Your task to perform on an android device: open app "Adobe Express: Graphic Design" (install if not already installed) and go to login screen Image 0: 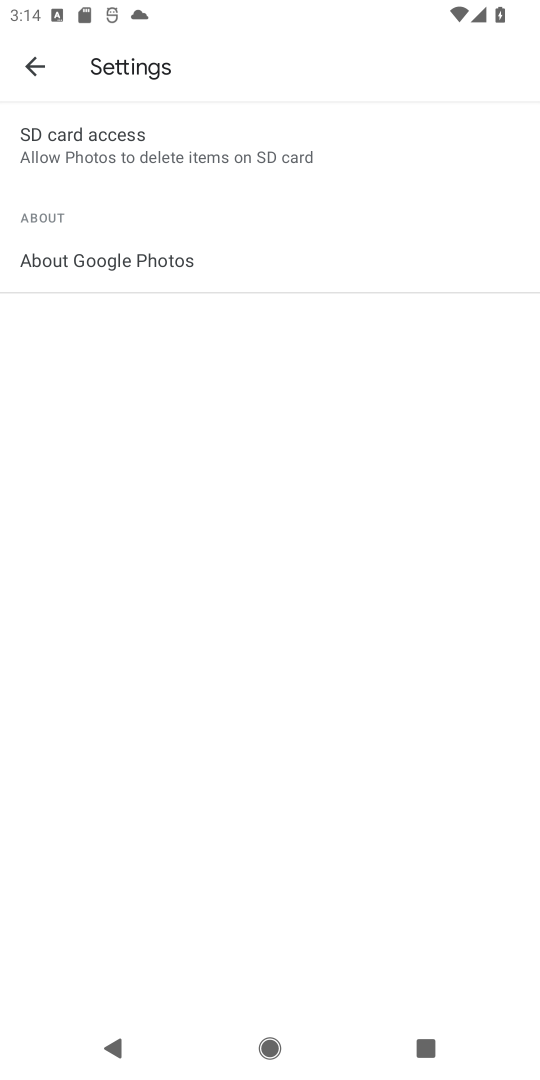
Step 0: press home button
Your task to perform on an android device: open app "Adobe Express: Graphic Design" (install if not already installed) and go to login screen Image 1: 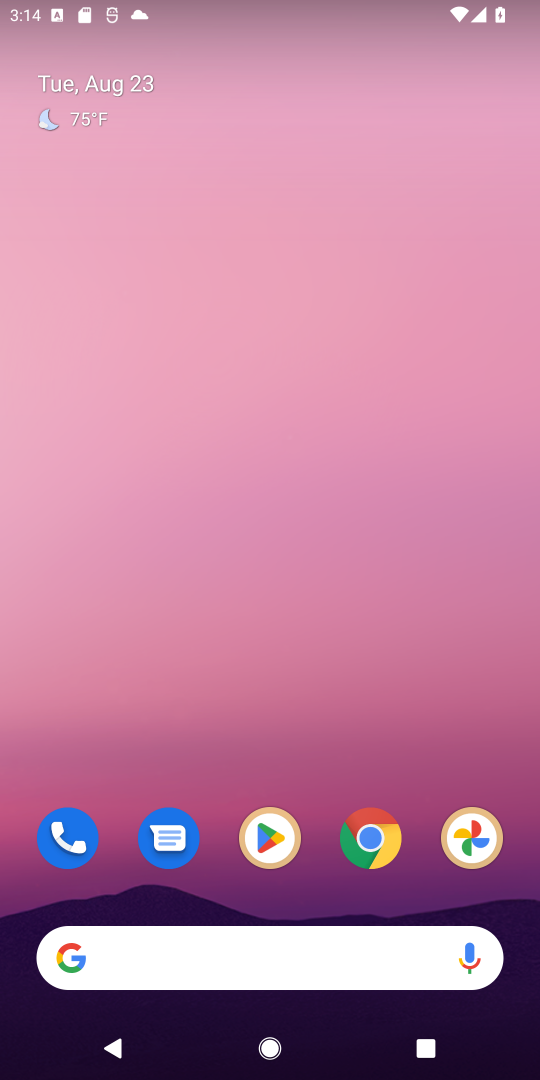
Step 1: click (261, 850)
Your task to perform on an android device: open app "Adobe Express: Graphic Design" (install if not already installed) and go to login screen Image 2: 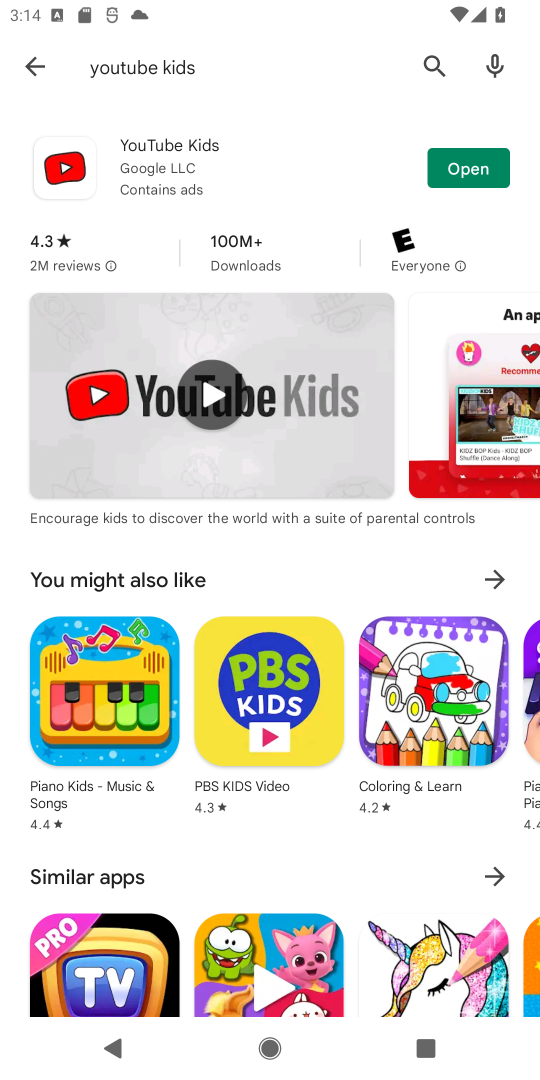
Step 2: click (31, 57)
Your task to perform on an android device: open app "Adobe Express: Graphic Design" (install if not already installed) and go to login screen Image 3: 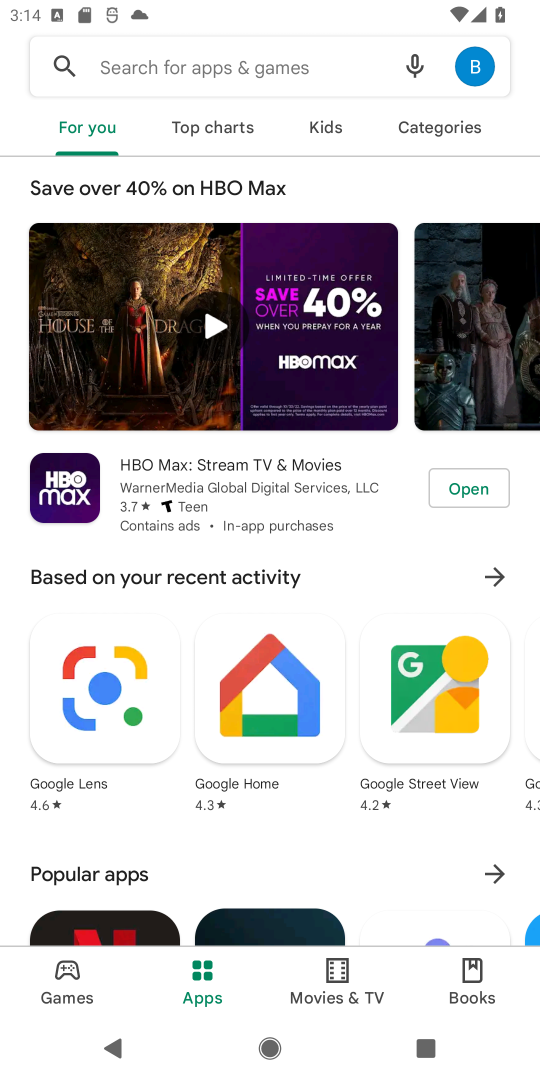
Step 3: click (117, 57)
Your task to perform on an android device: open app "Adobe Express: Graphic Design" (install if not already installed) and go to login screen Image 4: 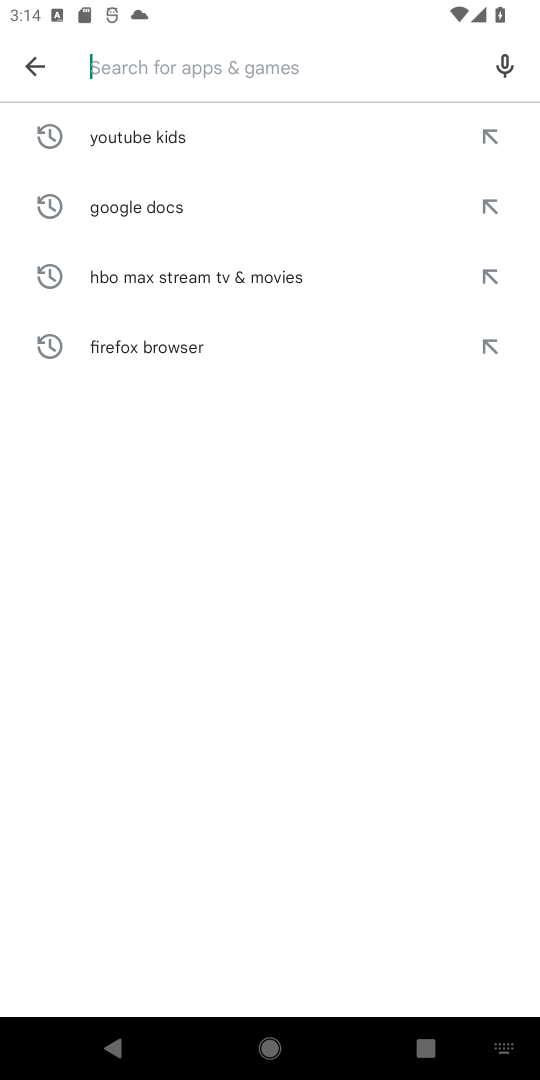
Step 4: type "Adobe Express: Graphic Design"
Your task to perform on an android device: open app "Adobe Express: Graphic Design" (install if not already installed) and go to login screen Image 5: 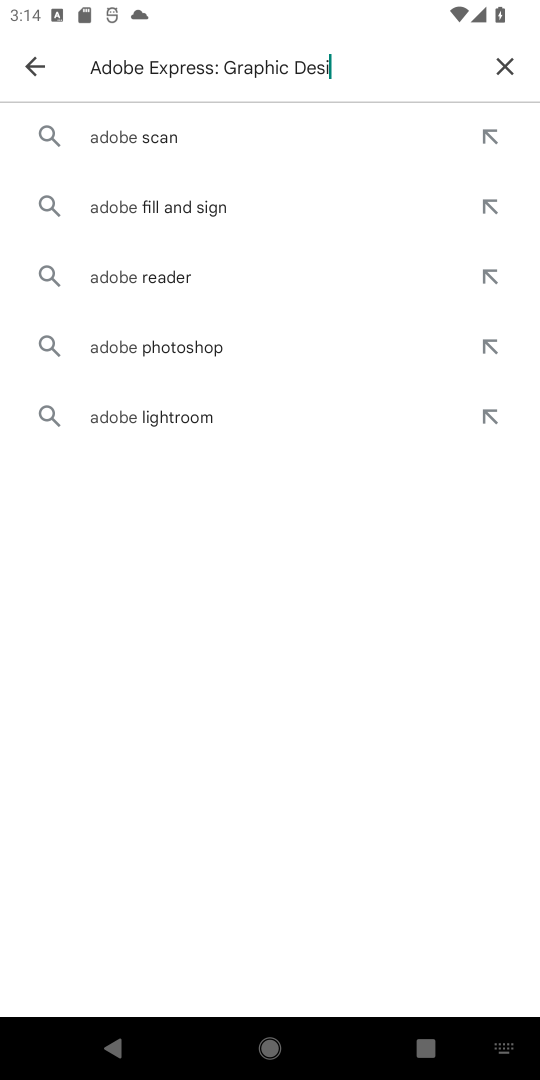
Step 5: type ""
Your task to perform on an android device: open app "Adobe Express: Graphic Design" (install if not already installed) and go to login screen Image 6: 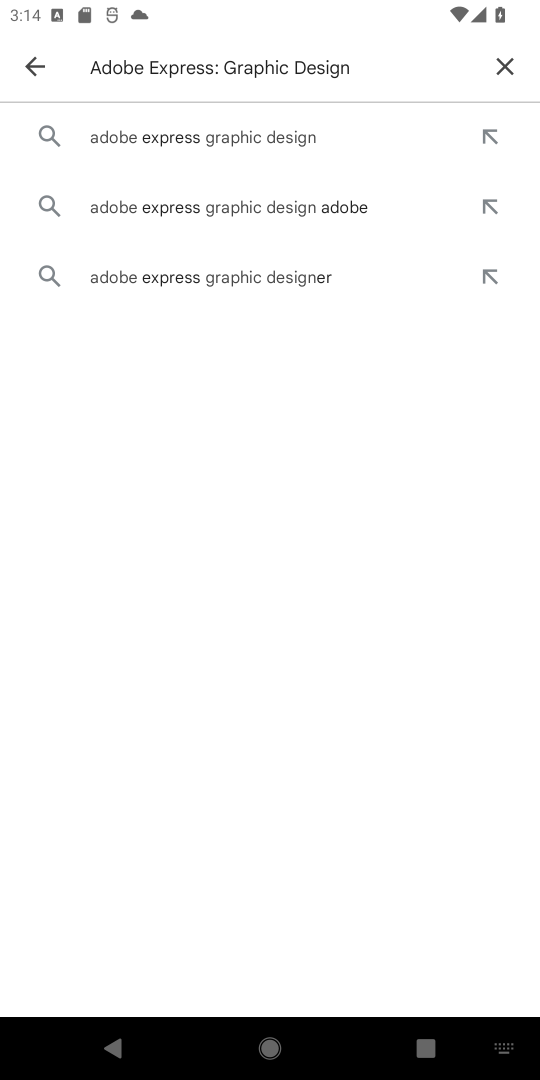
Step 6: click (110, 139)
Your task to perform on an android device: open app "Adobe Express: Graphic Design" (install if not already installed) and go to login screen Image 7: 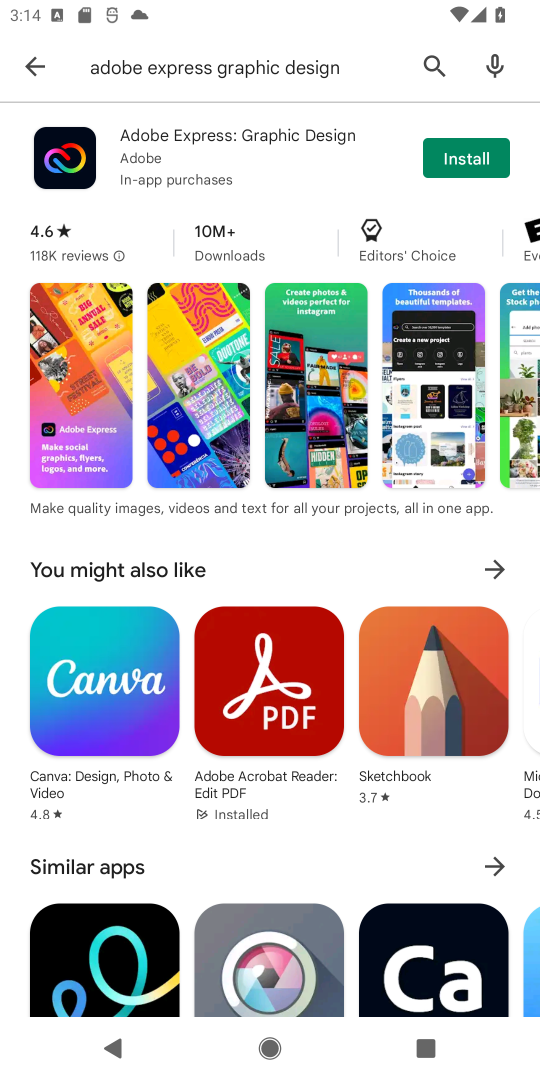
Step 7: click (449, 169)
Your task to perform on an android device: open app "Adobe Express: Graphic Design" (install if not already installed) and go to login screen Image 8: 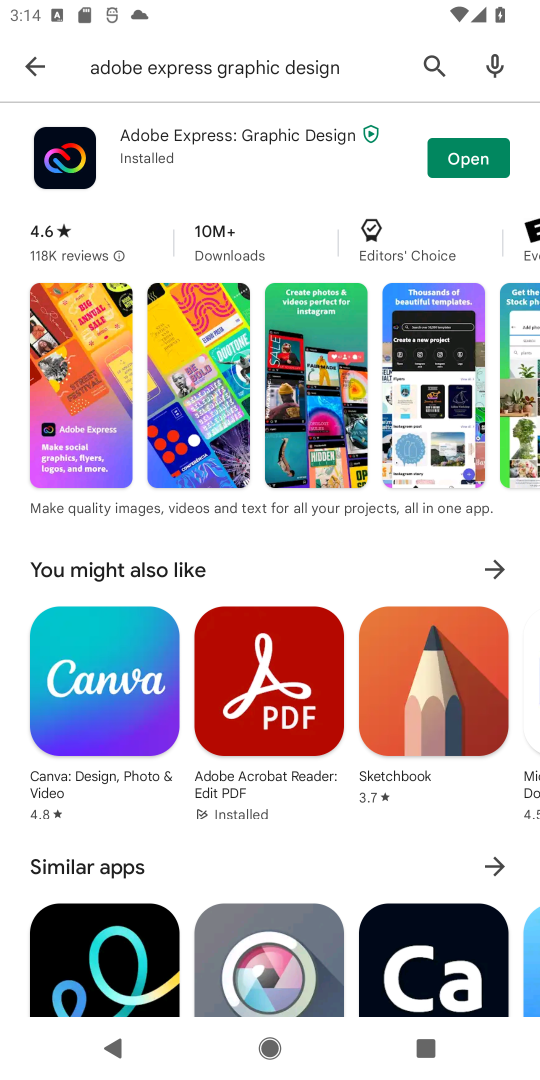
Step 8: click (478, 147)
Your task to perform on an android device: open app "Adobe Express: Graphic Design" (install if not already installed) and go to login screen Image 9: 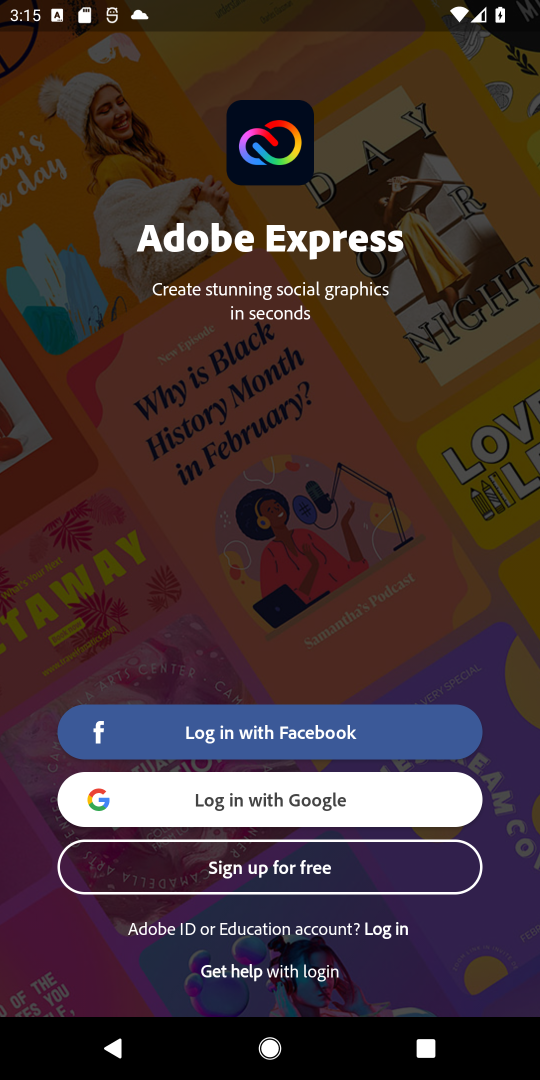
Step 9: click (403, 915)
Your task to perform on an android device: open app "Adobe Express: Graphic Design" (install if not already installed) and go to login screen Image 10: 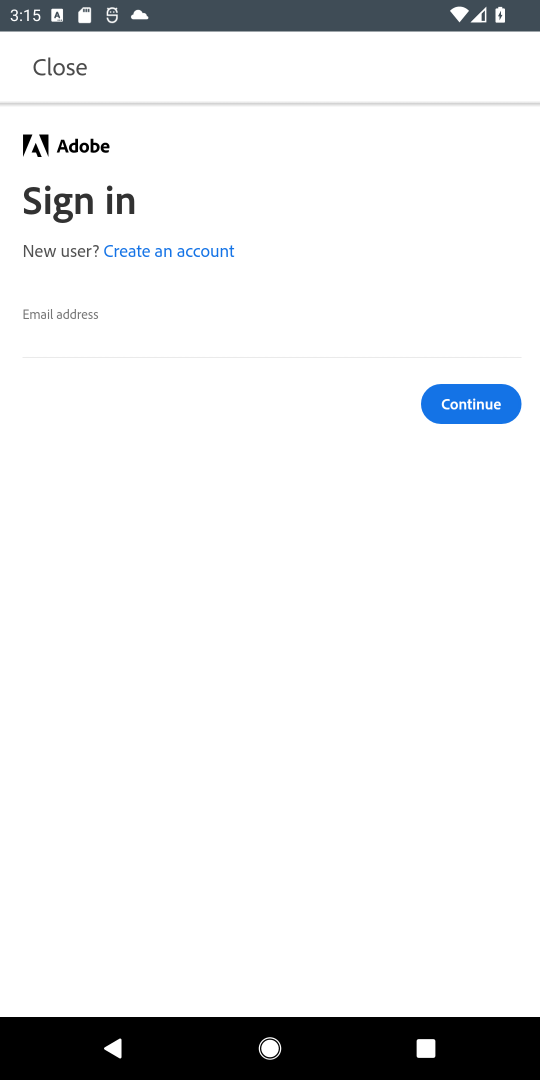
Step 10: task complete